Your task to perform on an android device: Open privacy settings Image 0: 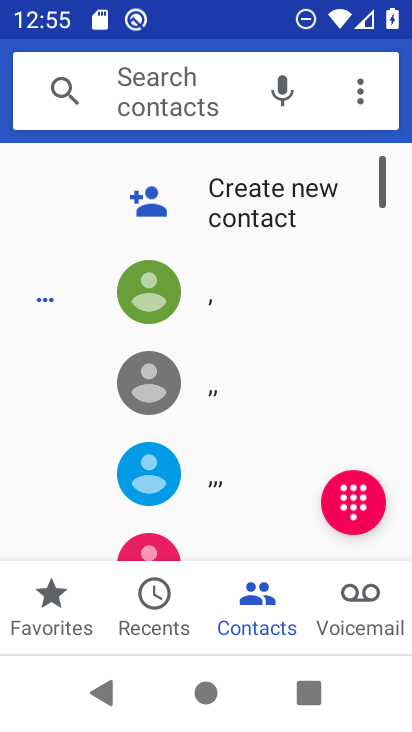
Step 0: press home button
Your task to perform on an android device: Open privacy settings Image 1: 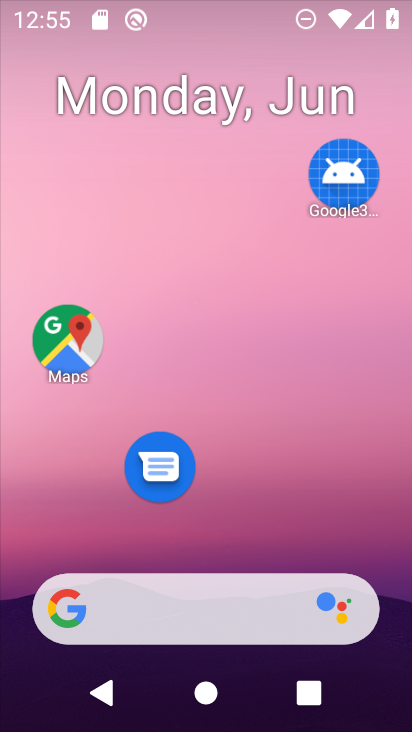
Step 1: drag from (280, 621) to (403, 445)
Your task to perform on an android device: Open privacy settings Image 2: 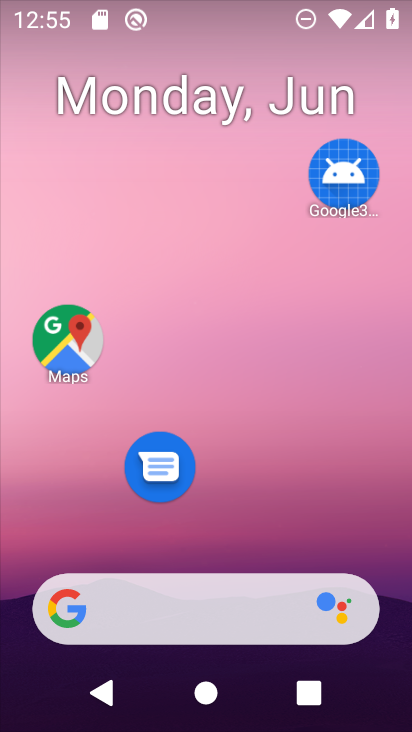
Step 2: drag from (241, 675) to (345, 1)
Your task to perform on an android device: Open privacy settings Image 3: 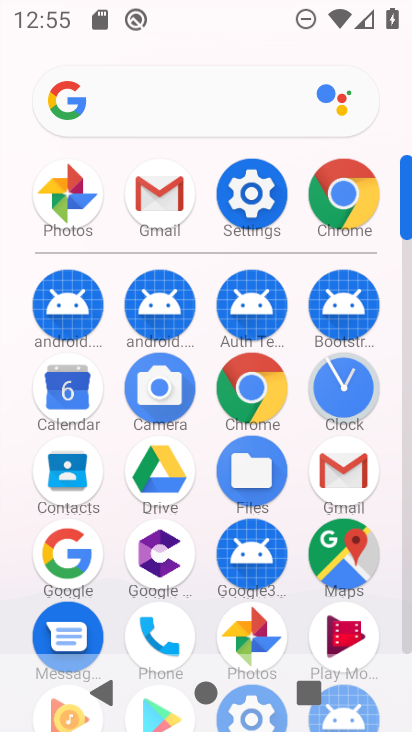
Step 3: click (252, 193)
Your task to perform on an android device: Open privacy settings Image 4: 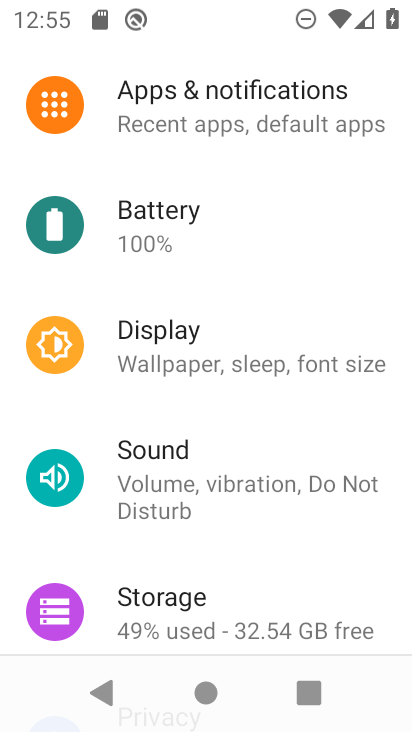
Step 4: drag from (301, 143) to (264, 507)
Your task to perform on an android device: Open privacy settings Image 5: 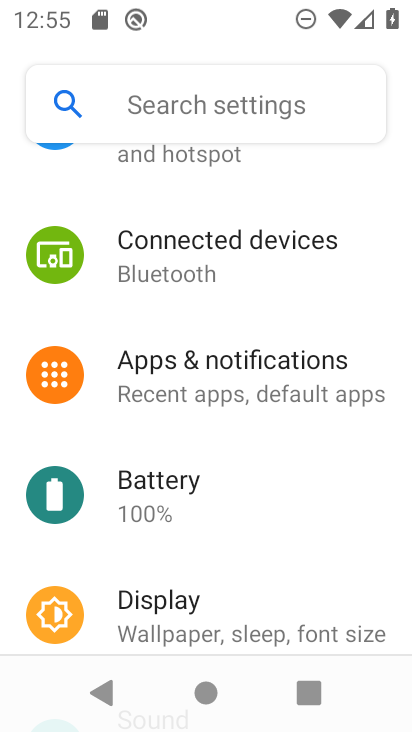
Step 5: drag from (264, 507) to (408, 210)
Your task to perform on an android device: Open privacy settings Image 6: 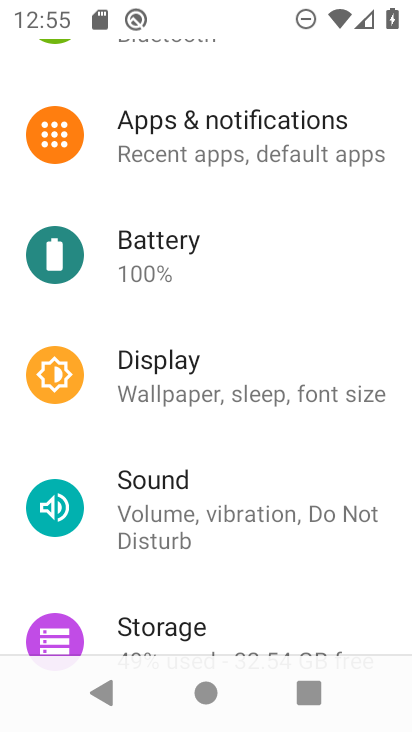
Step 6: drag from (242, 491) to (253, 246)
Your task to perform on an android device: Open privacy settings Image 7: 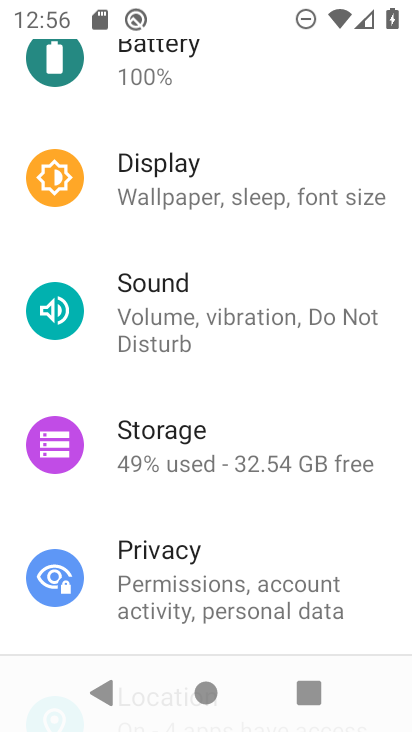
Step 7: click (173, 600)
Your task to perform on an android device: Open privacy settings Image 8: 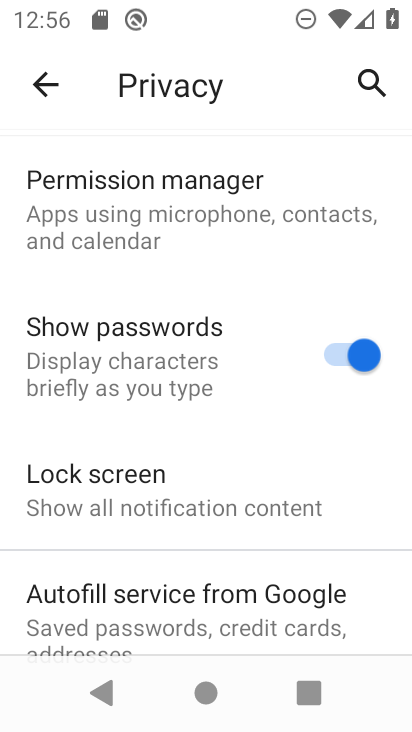
Step 8: task complete